Your task to perform on an android device: Go to sound settings Image 0: 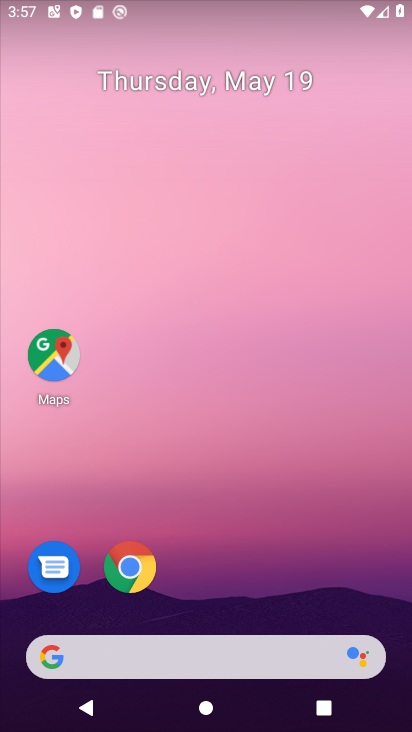
Step 0: drag from (247, 577) to (191, 16)
Your task to perform on an android device: Go to sound settings Image 1: 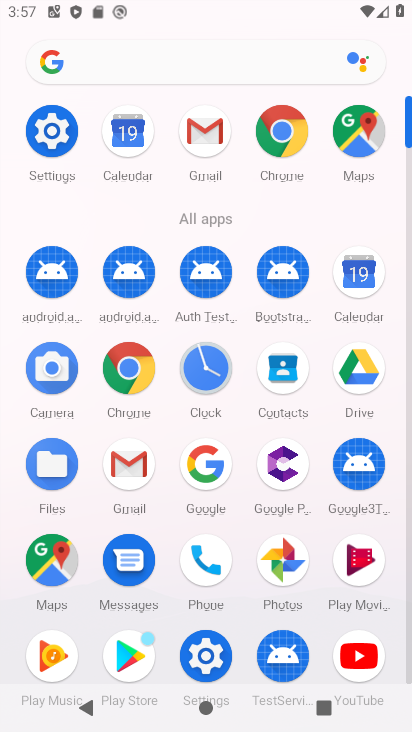
Step 1: click (43, 192)
Your task to perform on an android device: Go to sound settings Image 2: 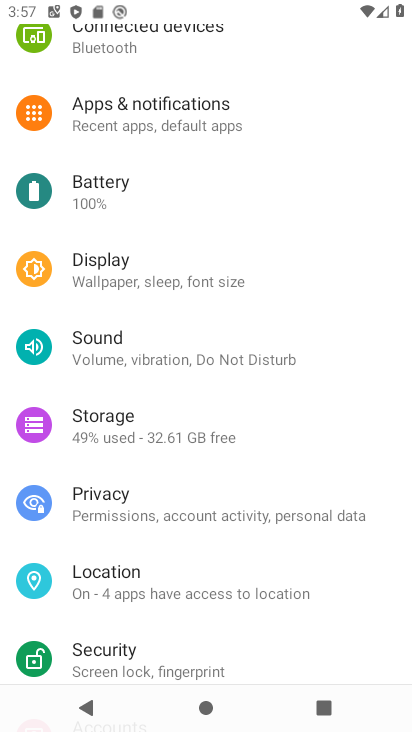
Step 2: click (104, 349)
Your task to perform on an android device: Go to sound settings Image 3: 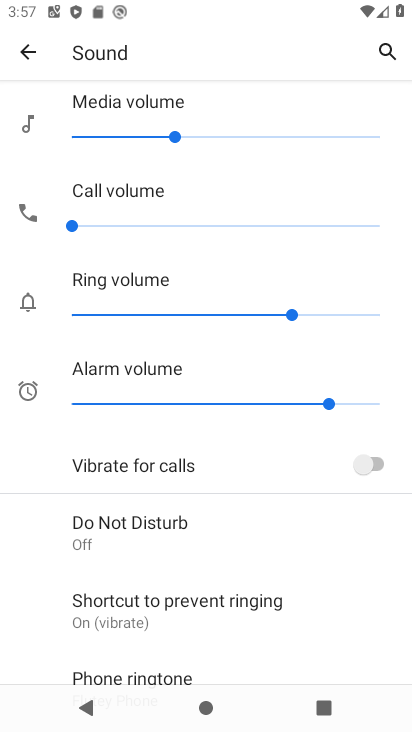
Step 3: task complete